Your task to perform on an android device: Open the map Image 0: 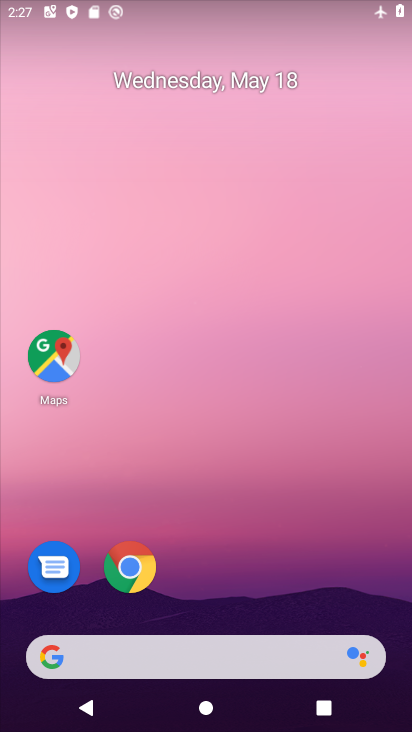
Step 0: click (53, 344)
Your task to perform on an android device: Open the map Image 1: 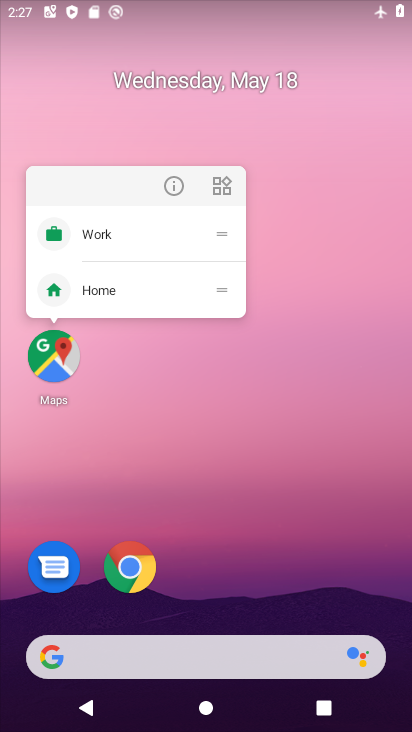
Step 1: task complete